Your task to perform on an android device: See recent photos Image 0: 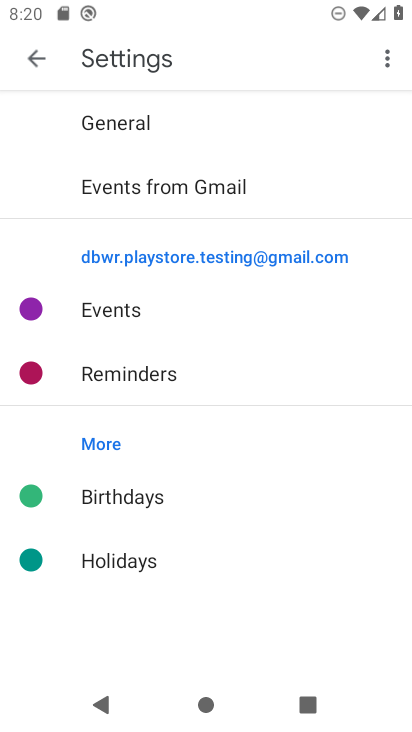
Step 0: press home button
Your task to perform on an android device: See recent photos Image 1: 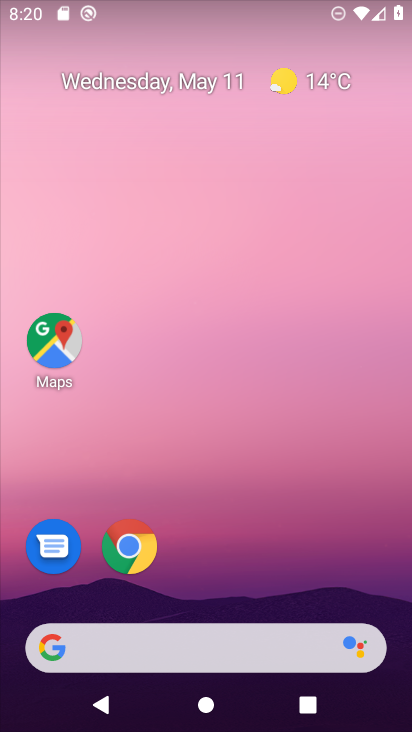
Step 1: drag from (247, 617) to (251, 75)
Your task to perform on an android device: See recent photos Image 2: 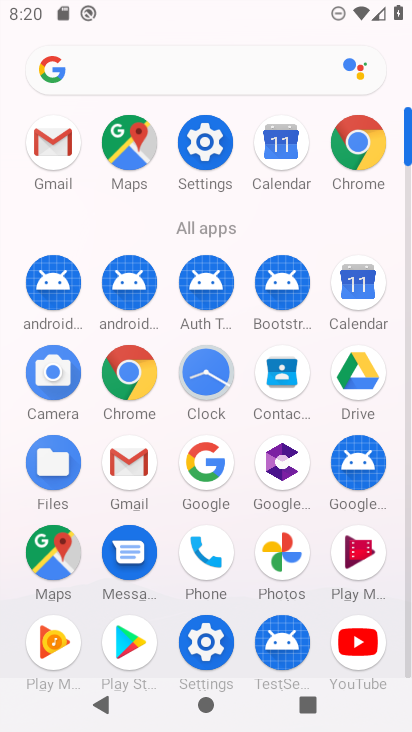
Step 2: click (267, 542)
Your task to perform on an android device: See recent photos Image 3: 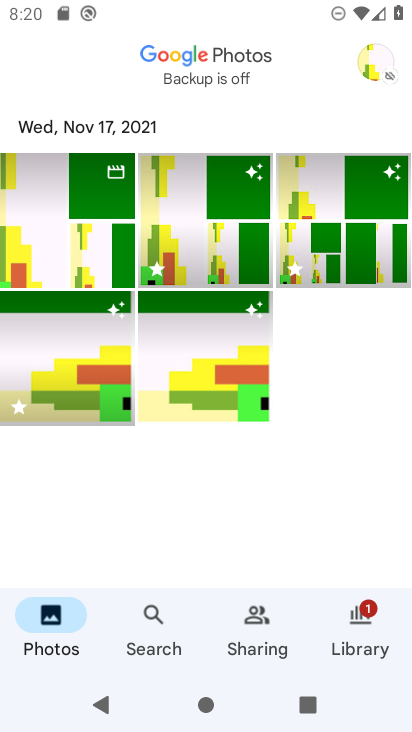
Step 3: task complete